Your task to perform on an android device: open app "Adobe Acrobat Reader" (install if not already installed) and go to login screen Image 0: 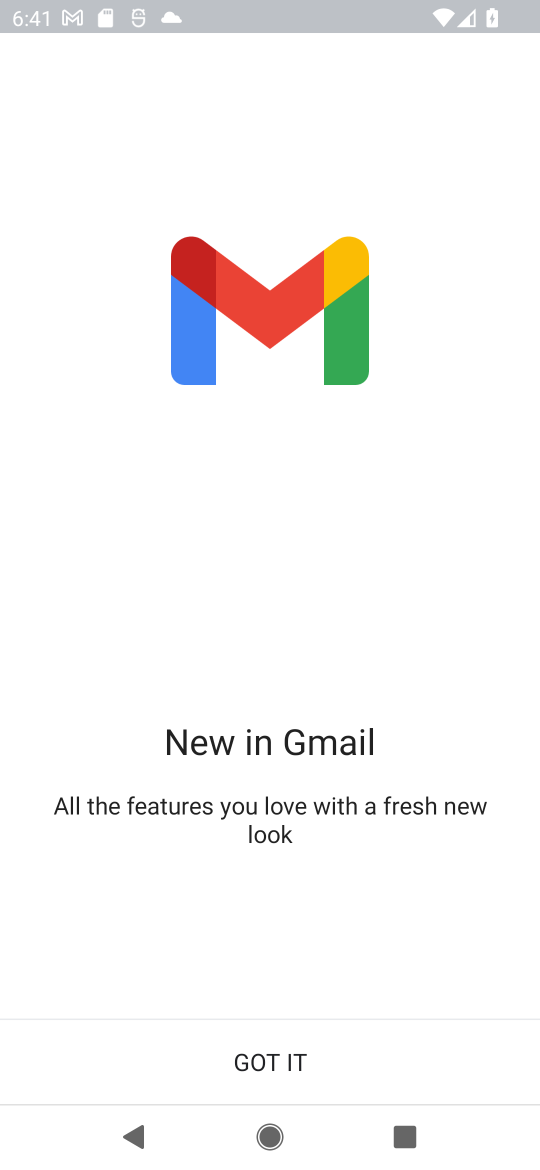
Step 0: press home button
Your task to perform on an android device: open app "Adobe Acrobat Reader" (install if not already installed) and go to login screen Image 1: 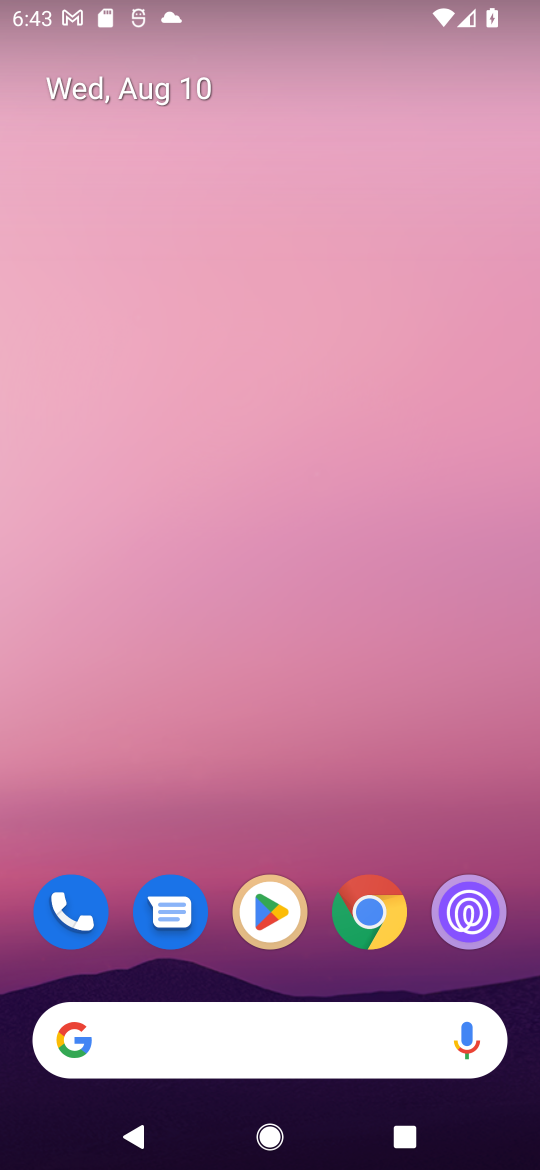
Step 1: drag from (427, 963) to (351, 30)
Your task to perform on an android device: open app "Adobe Acrobat Reader" (install if not already installed) and go to login screen Image 2: 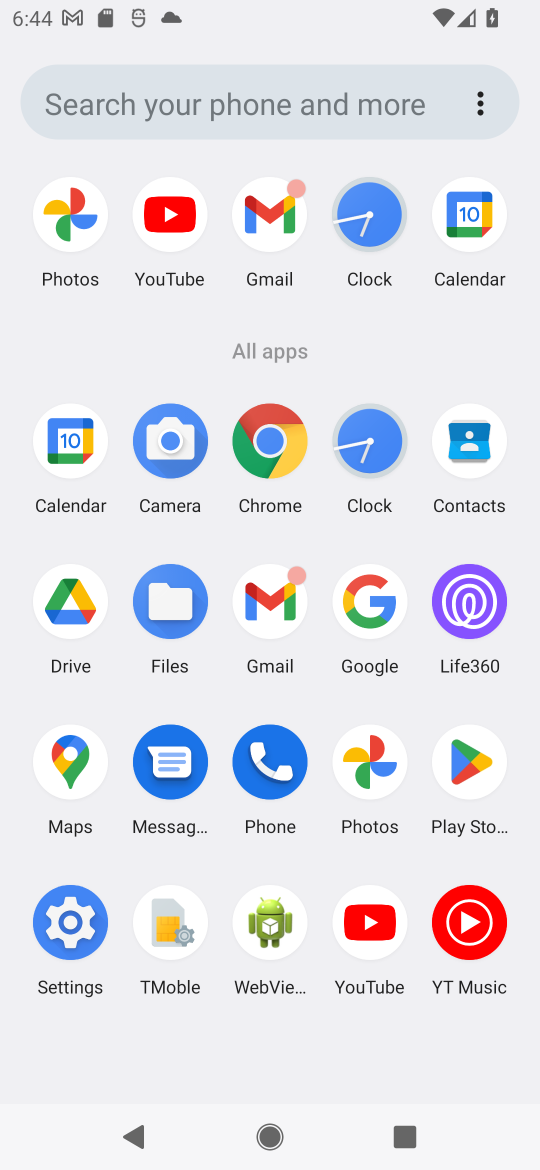
Step 2: click (465, 789)
Your task to perform on an android device: open app "Adobe Acrobat Reader" (install if not already installed) and go to login screen Image 3: 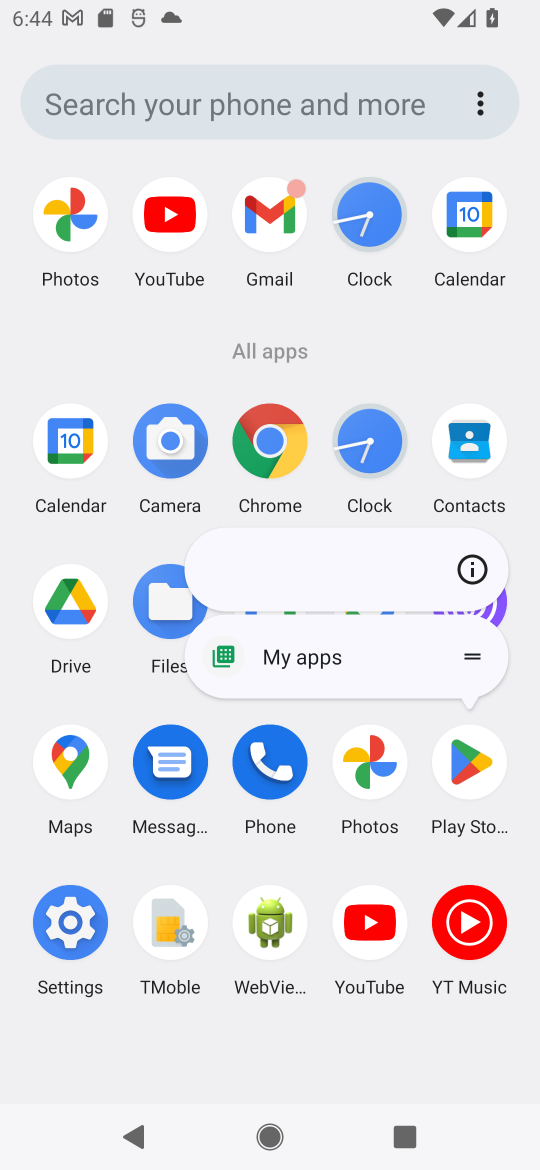
Step 3: click (461, 774)
Your task to perform on an android device: open app "Adobe Acrobat Reader" (install if not already installed) and go to login screen Image 4: 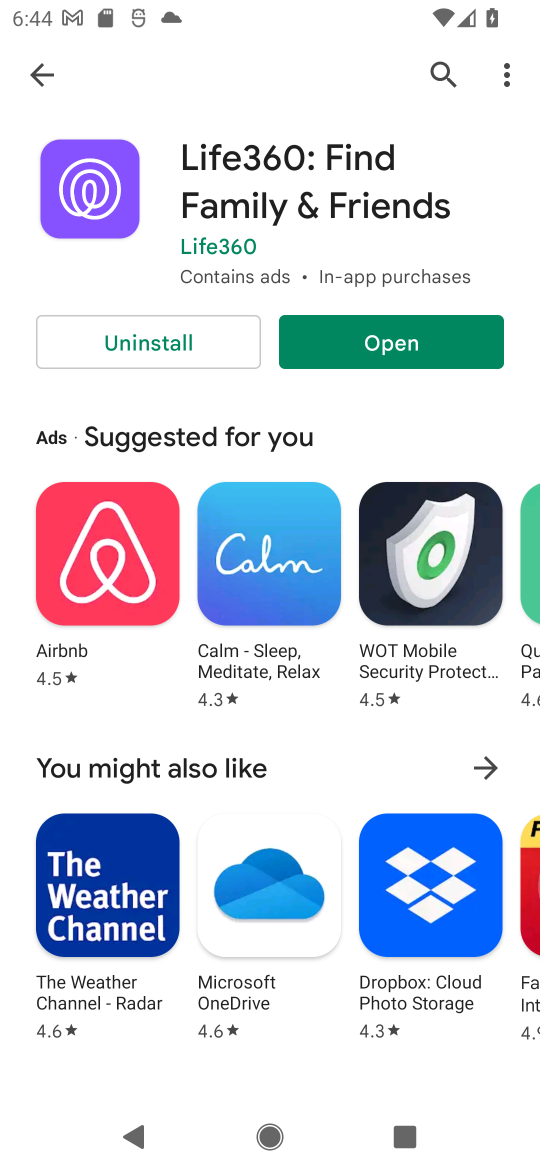
Step 4: press back button
Your task to perform on an android device: open app "Adobe Acrobat Reader" (install if not already installed) and go to login screen Image 5: 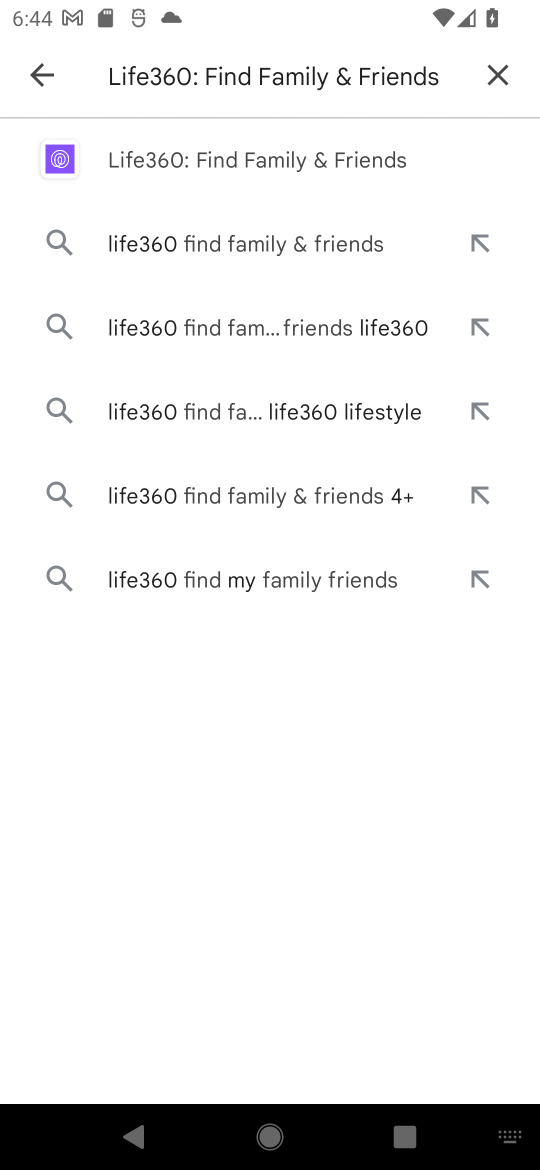
Step 5: click (487, 70)
Your task to perform on an android device: open app "Adobe Acrobat Reader" (install if not already installed) and go to login screen Image 6: 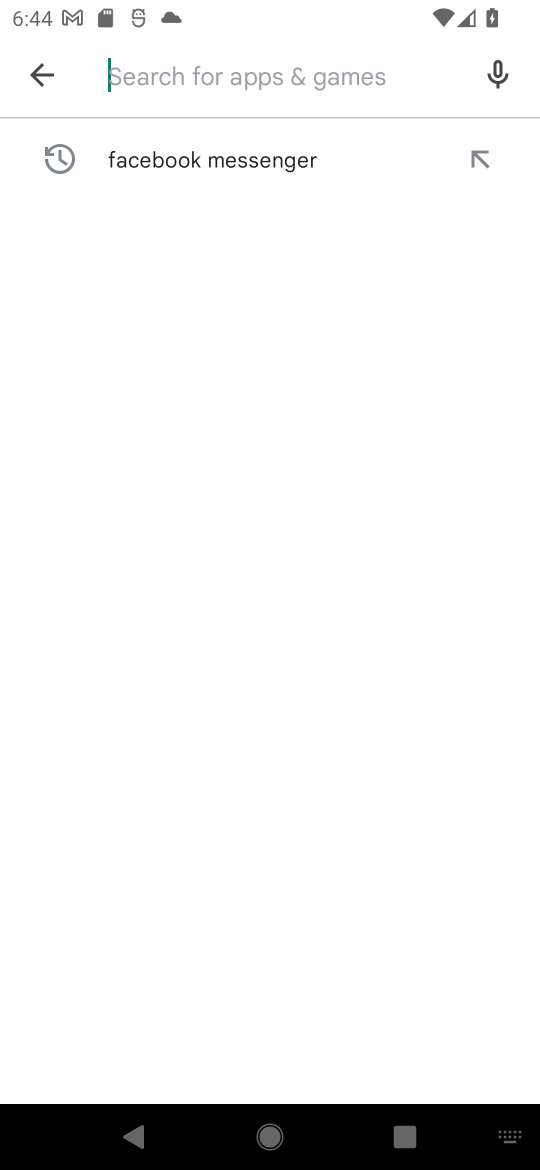
Step 6: type "Adobe Acrobat Reader"
Your task to perform on an android device: open app "Adobe Acrobat Reader" (install if not already installed) and go to login screen Image 7: 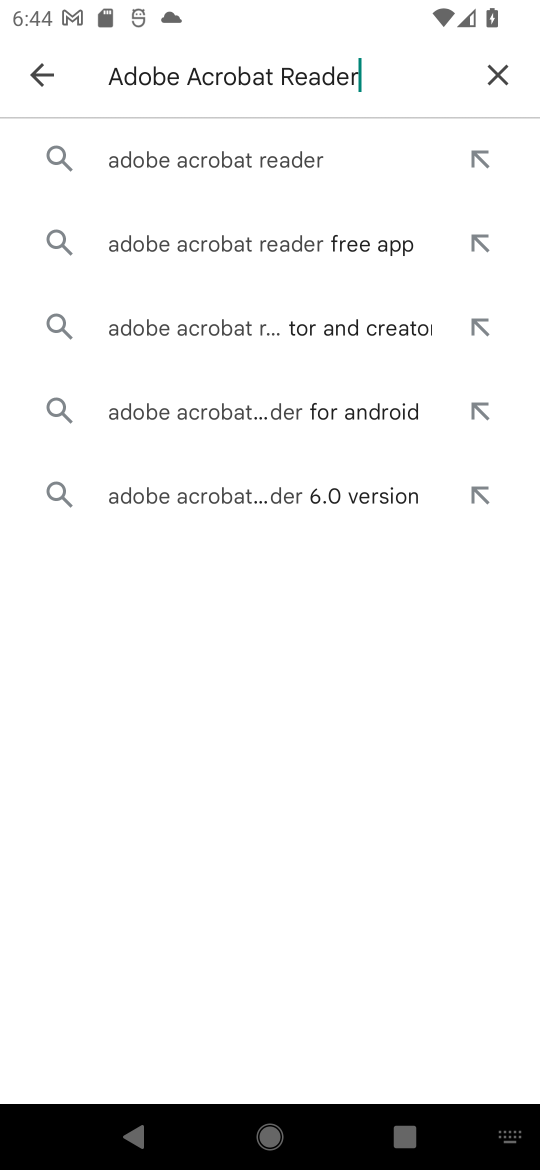
Step 7: click (252, 155)
Your task to perform on an android device: open app "Adobe Acrobat Reader" (install if not already installed) and go to login screen Image 8: 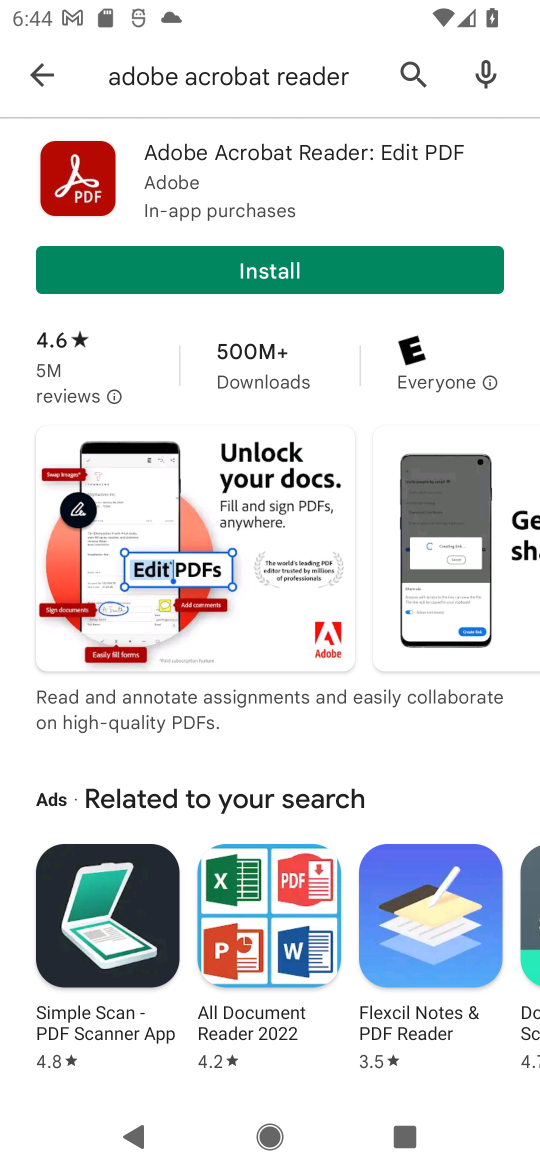
Step 8: task complete